Your task to perform on an android device: turn off priority inbox in the gmail app Image 0: 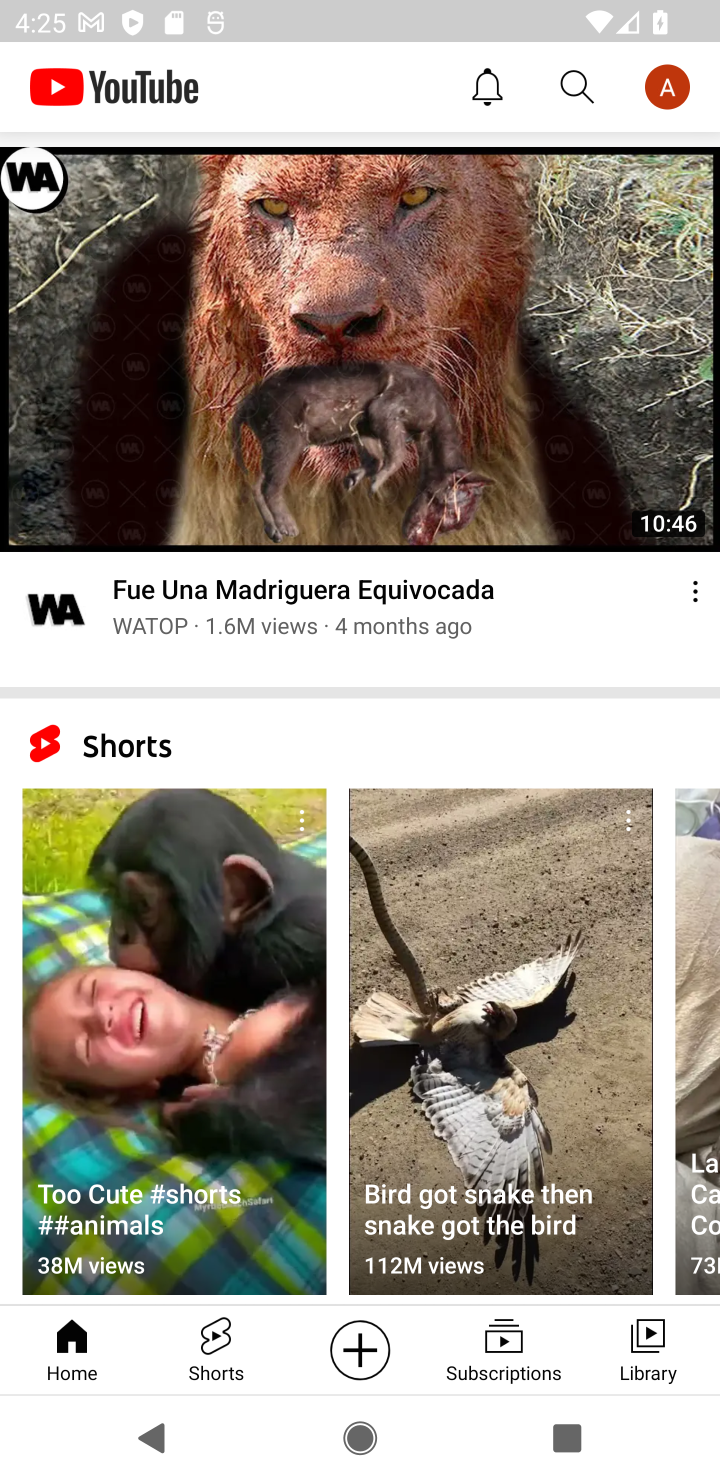
Step 0: press home button
Your task to perform on an android device: turn off priority inbox in the gmail app Image 1: 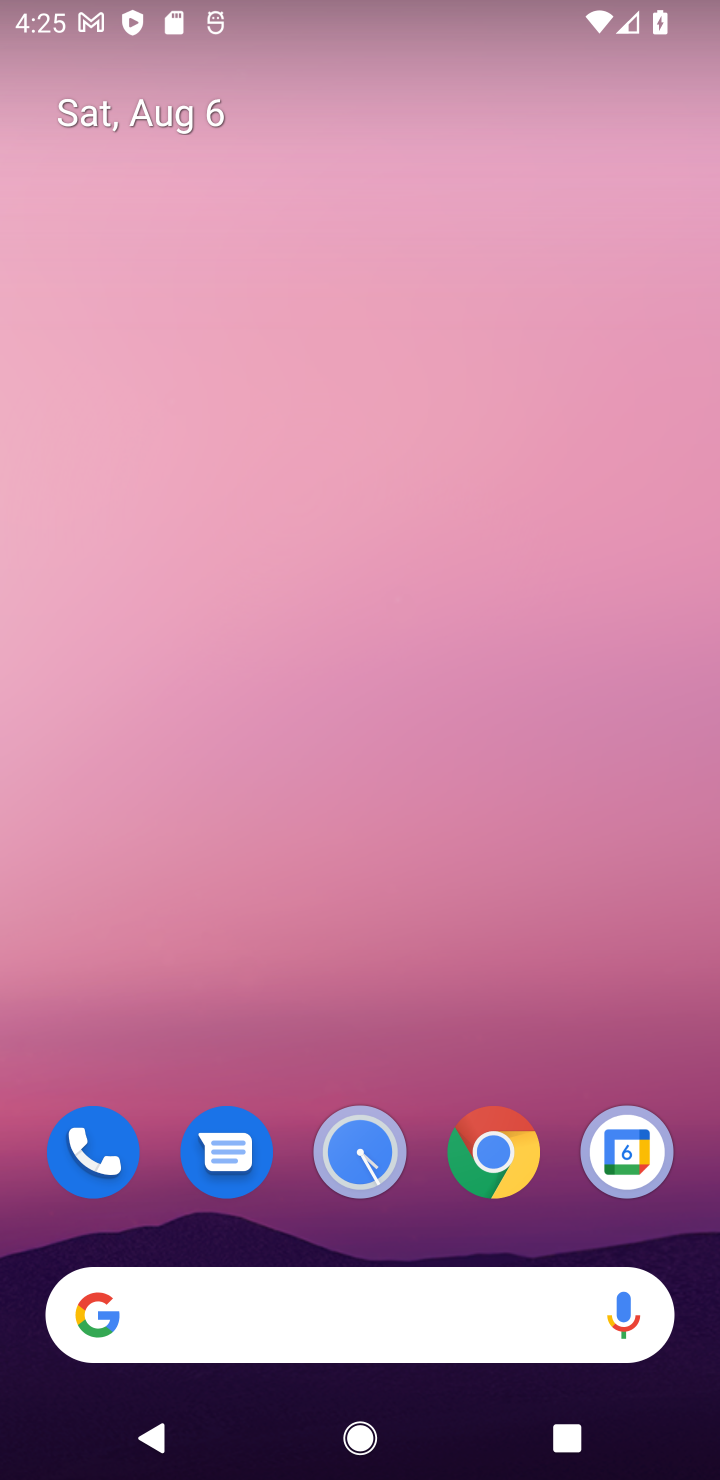
Step 1: drag from (415, 1205) to (609, 237)
Your task to perform on an android device: turn off priority inbox in the gmail app Image 2: 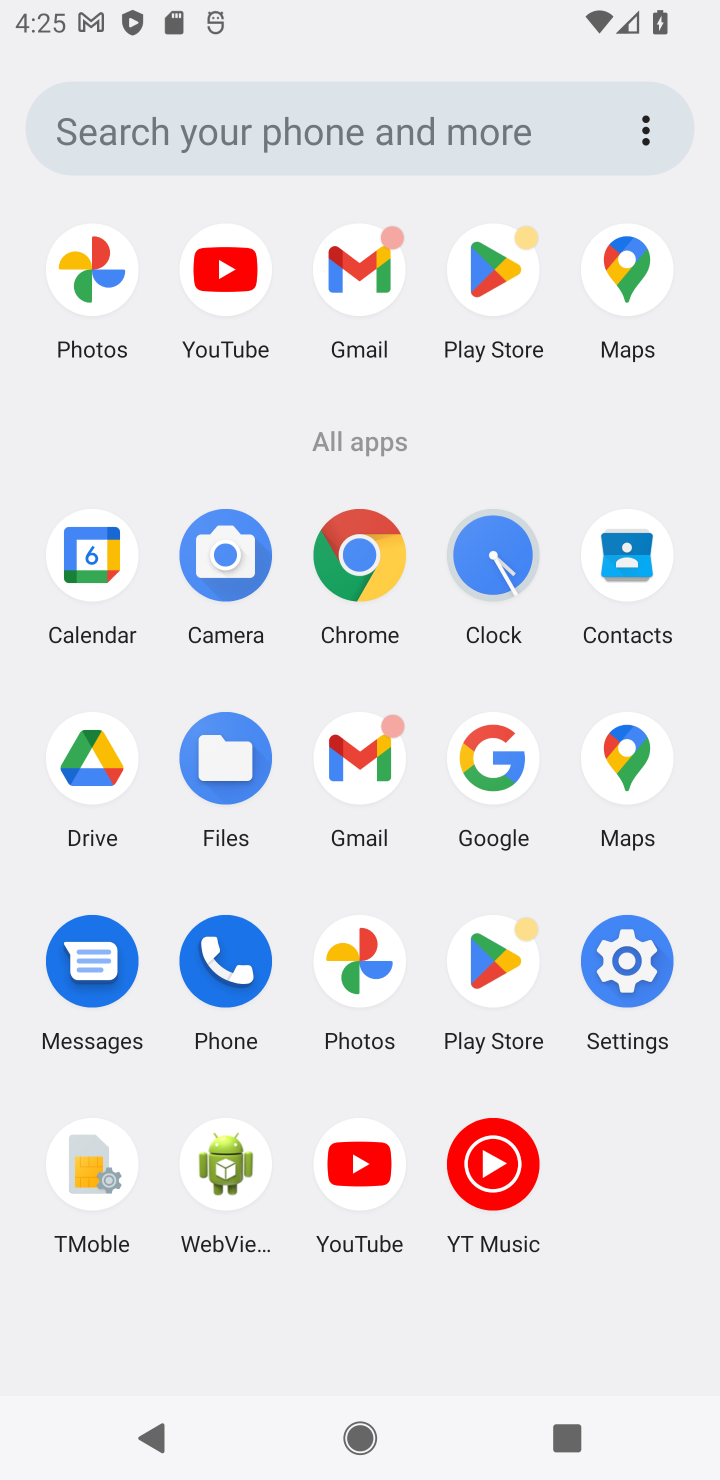
Step 2: click (354, 763)
Your task to perform on an android device: turn off priority inbox in the gmail app Image 3: 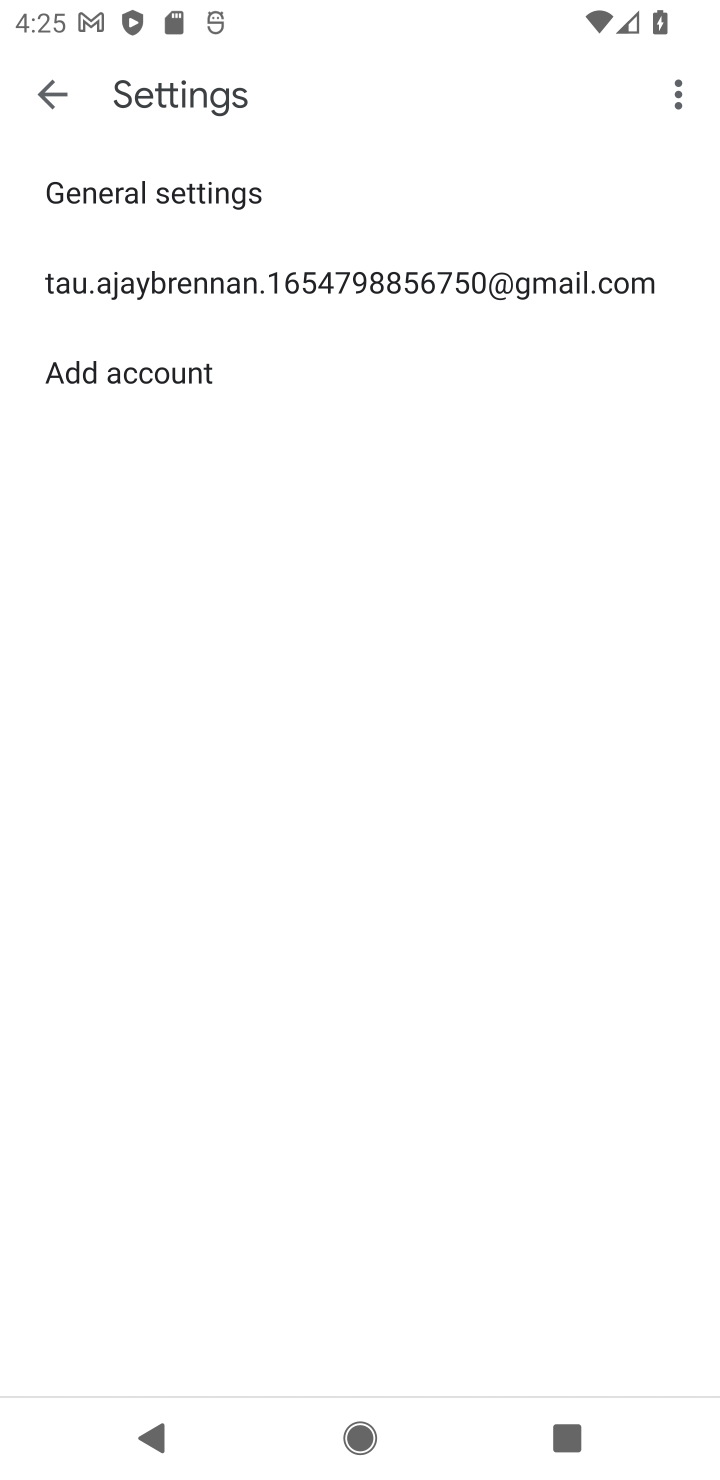
Step 3: click (279, 278)
Your task to perform on an android device: turn off priority inbox in the gmail app Image 4: 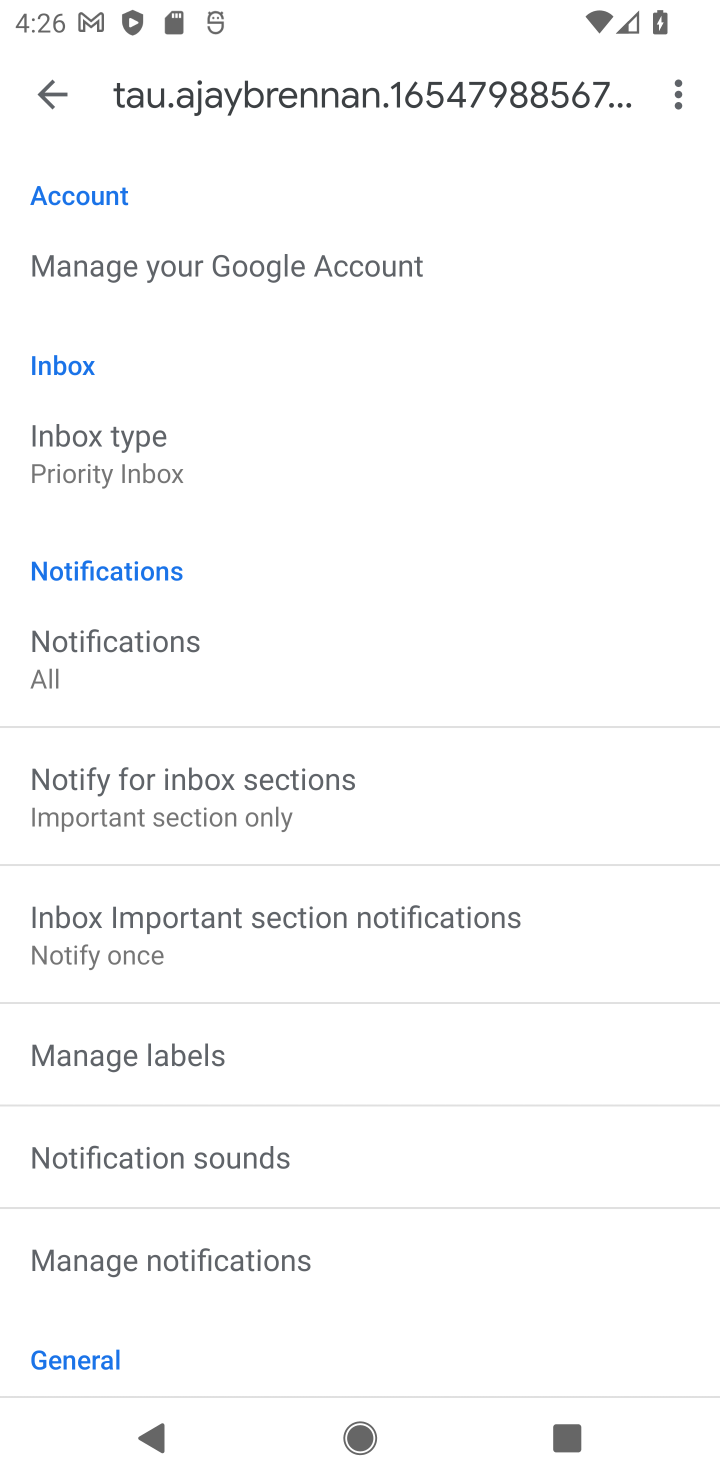
Step 4: click (143, 441)
Your task to perform on an android device: turn off priority inbox in the gmail app Image 5: 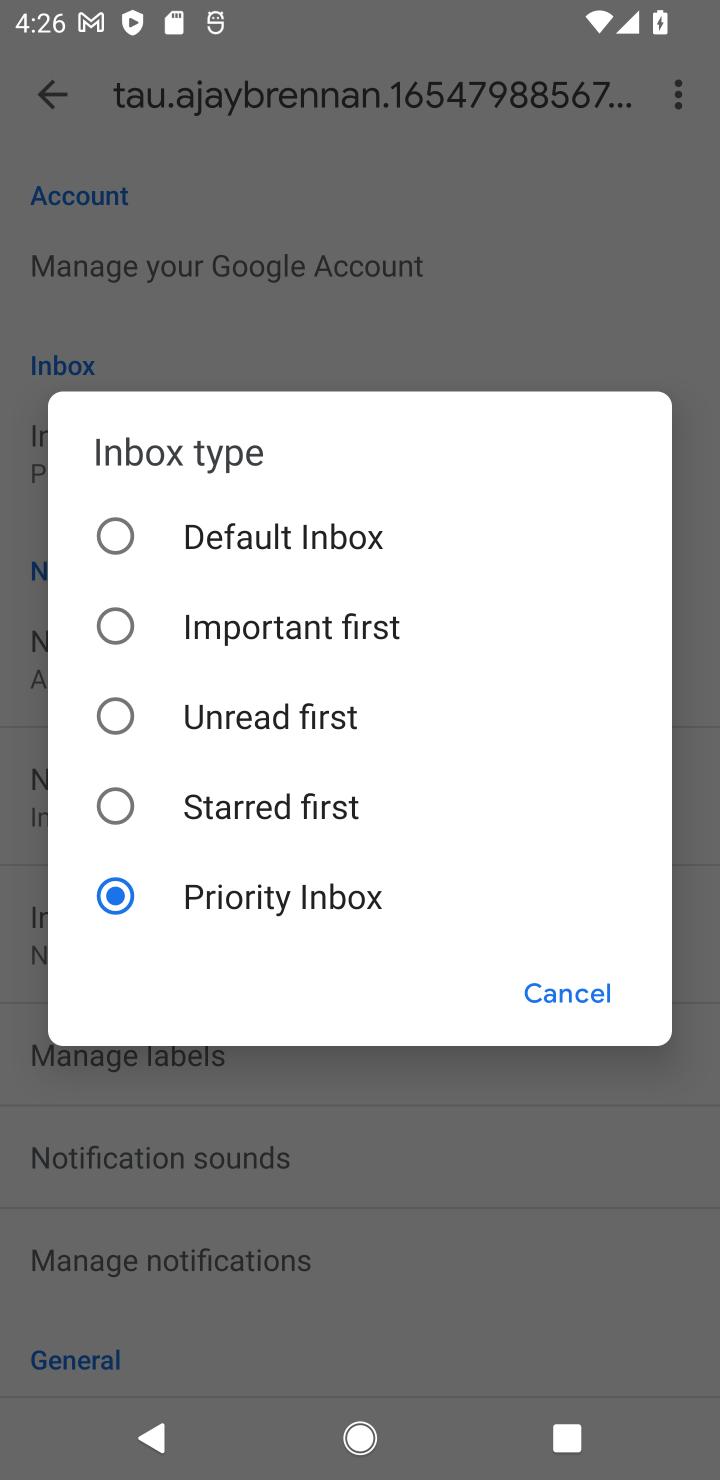
Step 5: task complete